Your task to perform on an android device: turn notification dots off Image 0: 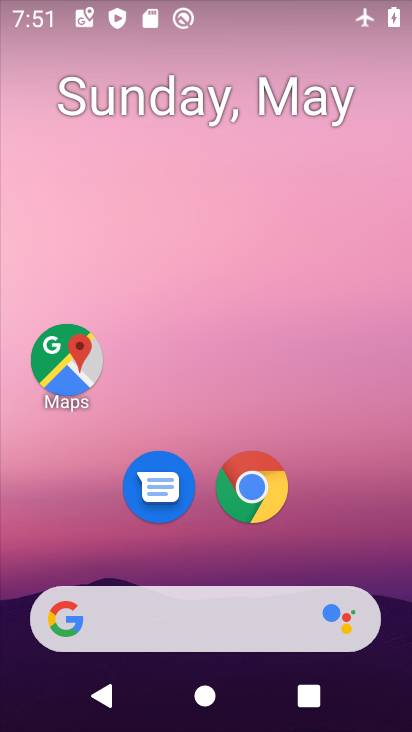
Step 0: drag from (373, 566) to (339, 292)
Your task to perform on an android device: turn notification dots off Image 1: 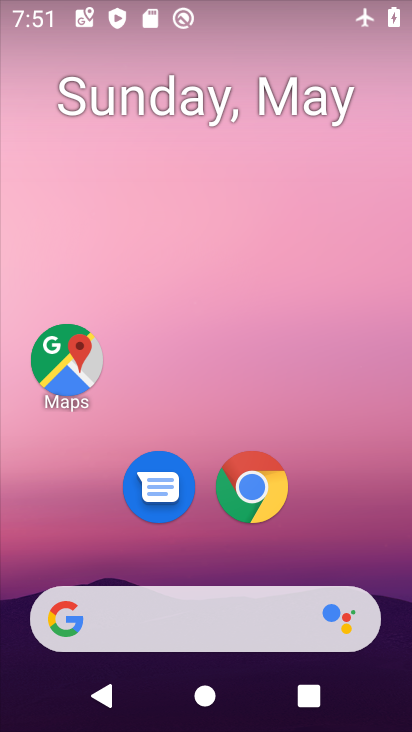
Step 1: drag from (368, 568) to (371, 172)
Your task to perform on an android device: turn notification dots off Image 2: 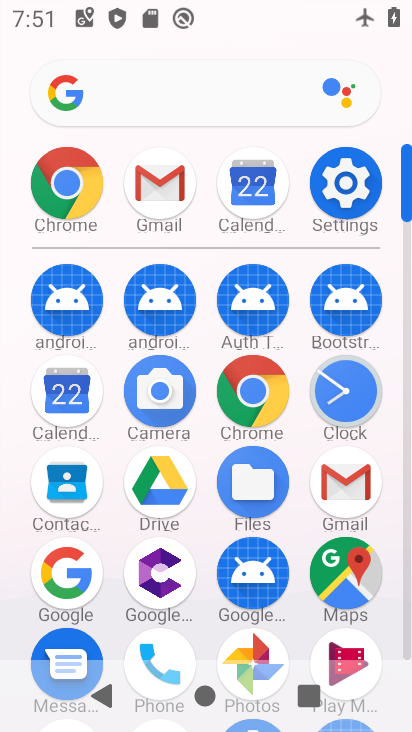
Step 2: click (350, 203)
Your task to perform on an android device: turn notification dots off Image 3: 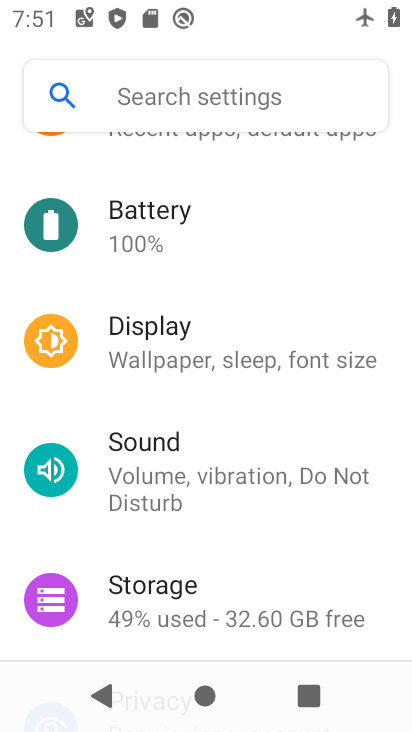
Step 3: drag from (362, 261) to (364, 360)
Your task to perform on an android device: turn notification dots off Image 4: 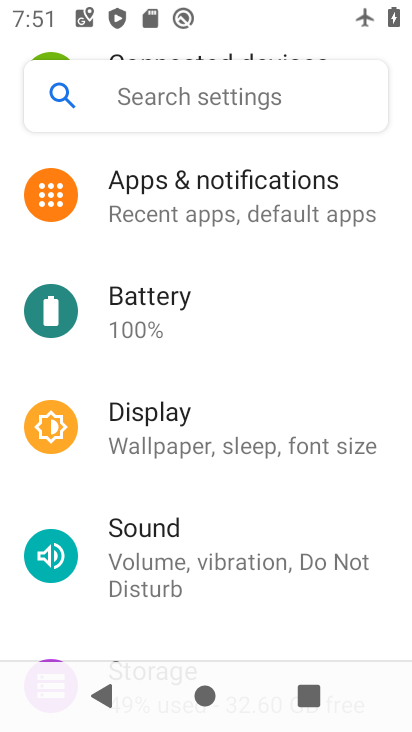
Step 4: drag from (390, 210) to (374, 358)
Your task to perform on an android device: turn notification dots off Image 5: 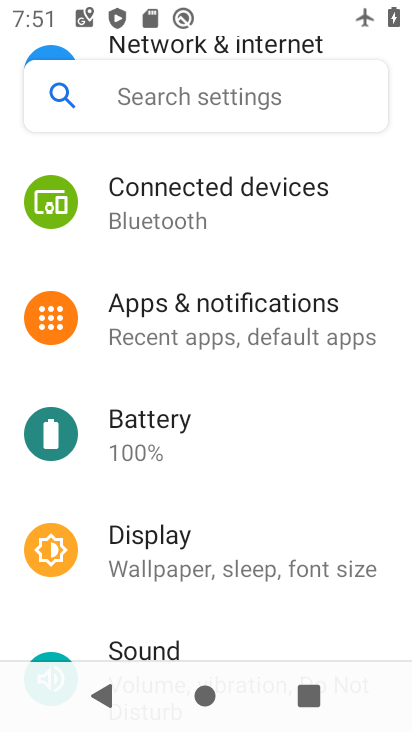
Step 5: drag from (380, 264) to (379, 346)
Your task to perform on an android device: turn notification dots off Image 6: 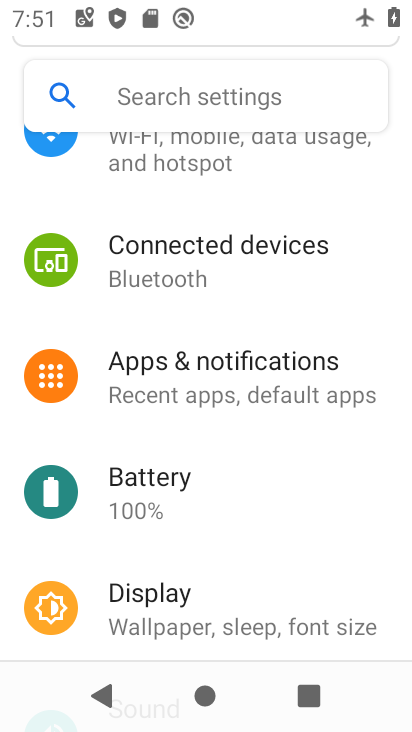
Step 6: drag from (379, 248) to (381, 341)
Your task to perform on an android device: turn notification dots off Image 7: 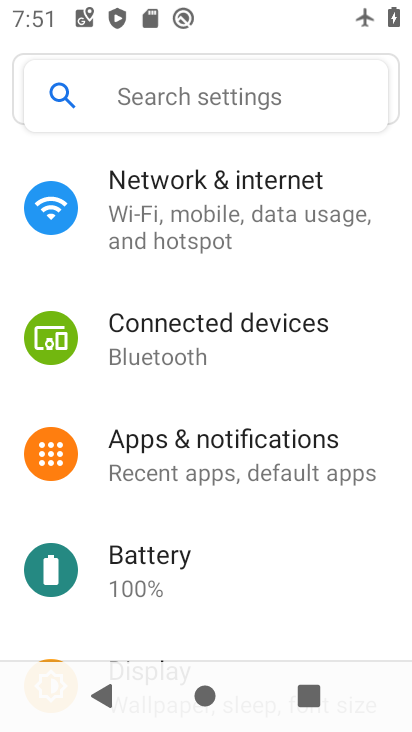
Step 7: drag from (380, 312) to (377, 400)
Your task to perform on an android device: turn notification dots off Image 8: 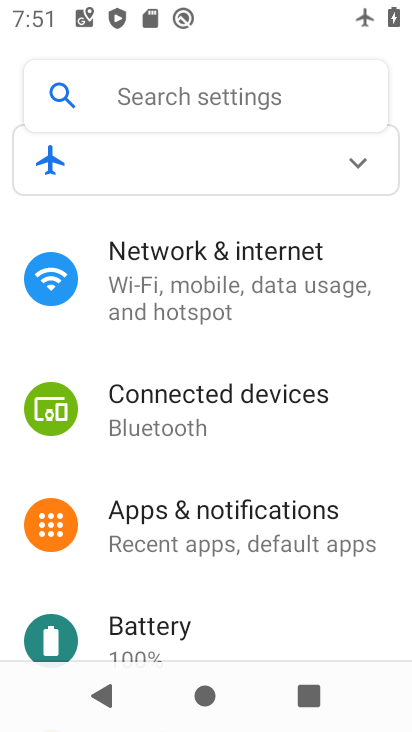
Step 8: drag from (376, 328) to (376, 416)
Your task to perform on an android device: turn notification dots off Image 9: 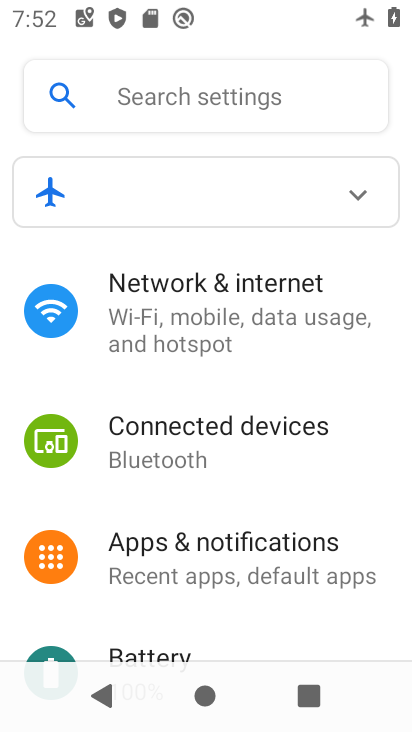
Step 9: drag from (378, 517) to (370, 403)
Your task to perform on an android device: turn notification dots off Image 10: 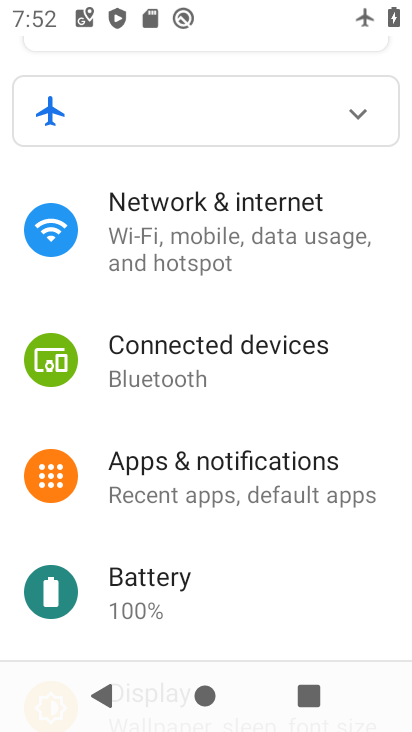
Step 10: click (309, 489)
Your task to perform on an android device: turn notification dots off Image 11: 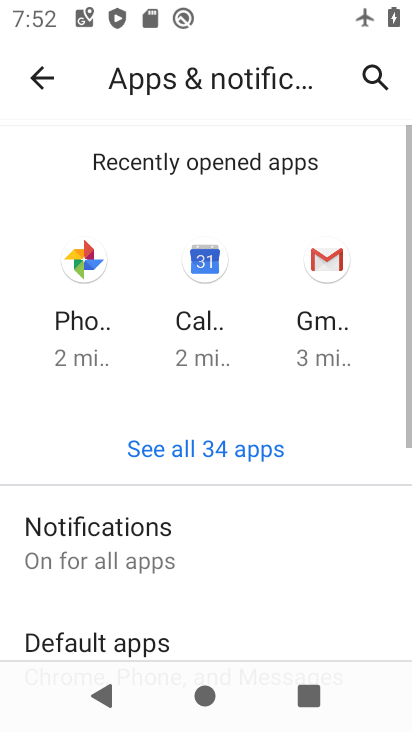
Step 11: drag from (318, 571) to (320, 455)
Your task to perform on an android device: turn notification dots off Image 12: 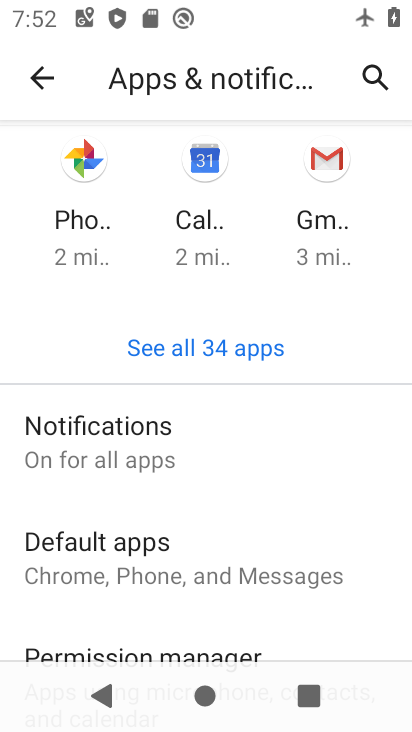
Step 12: drag from (336, 561) to (333, 455)
Your task to perform on an android device: turn notification dots off Image 13: 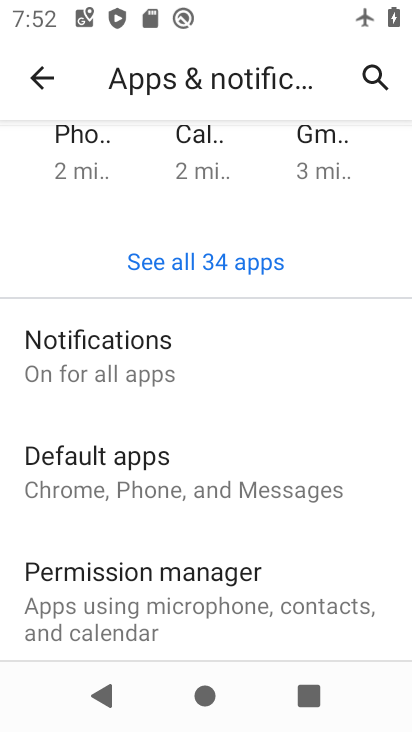
Step 13: click (132, 380)
Your task to perform on an android device: turn notification dots off Image 14: 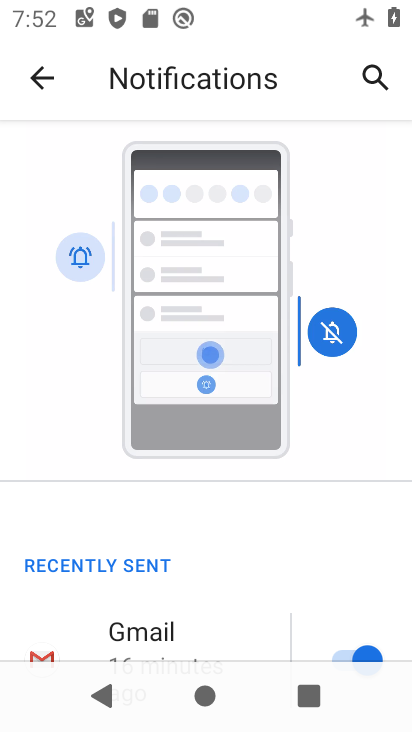
Step 14: drag from (264, 618) to (258, 535)
Your task to perform on an android device: turn notification dots off Image 15: 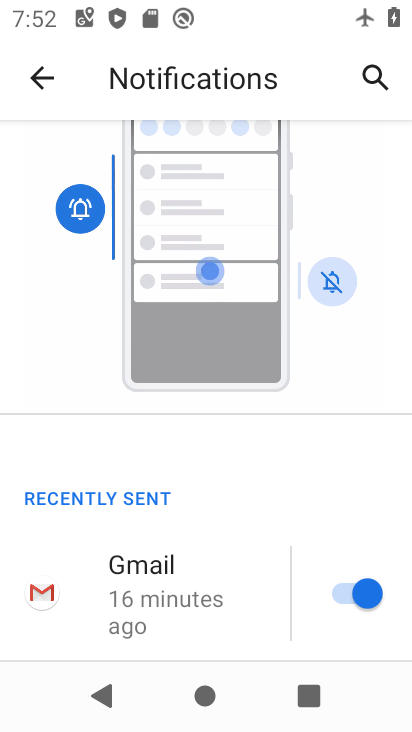
Step 15: drag from (253, 599) to (254, 518)
Your task to perform on an android device: turn notification dots off Image 16: 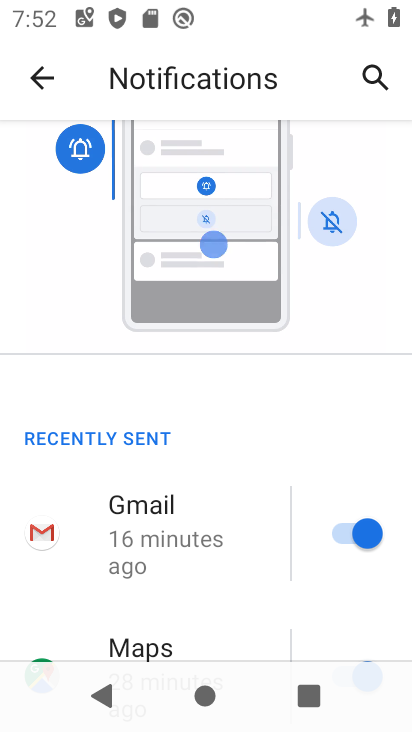
Step 16: drag from (247, 619) to (246, 515)
Your task to perform on an android device: turn notification dots off Image 17: 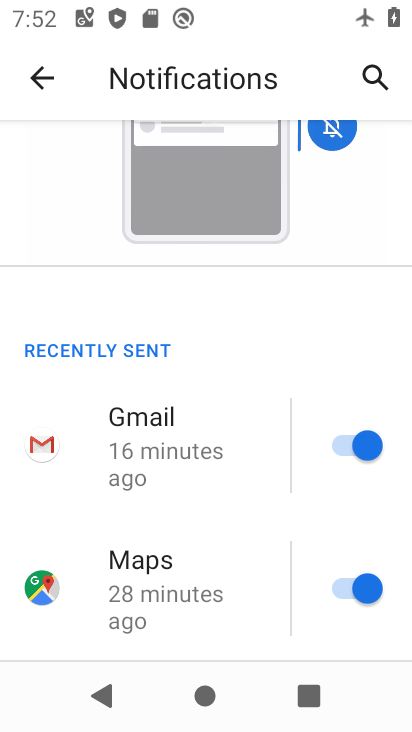
Step 17: drag from (243, 620) to (242, 510)
Your task to perform on an android device: turn notification dots off Image 18: 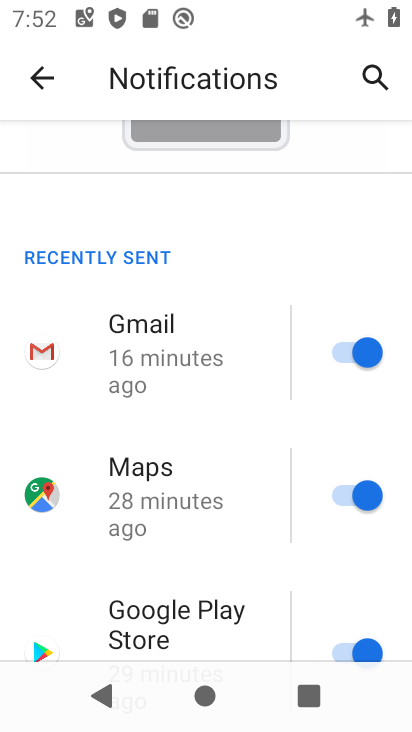
Step 18: drag from (266, 623) to (266, 509)
Your task to perform on an android device: turn notification dots off Image 19: 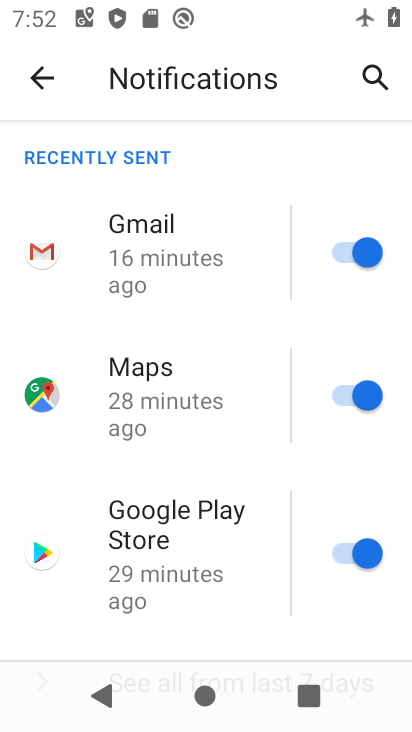
Step 19: drag from (248, 601) to (246, 510)
Your task to perform on an android device: turn notification dots off Image 20: 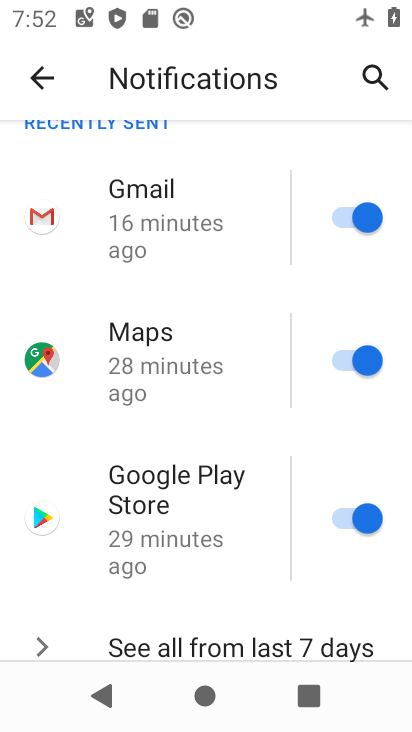
Step 20: drag from (250, 603) to (243, 522)
Your task to perform on an android device: turn notification dots off Image 21: 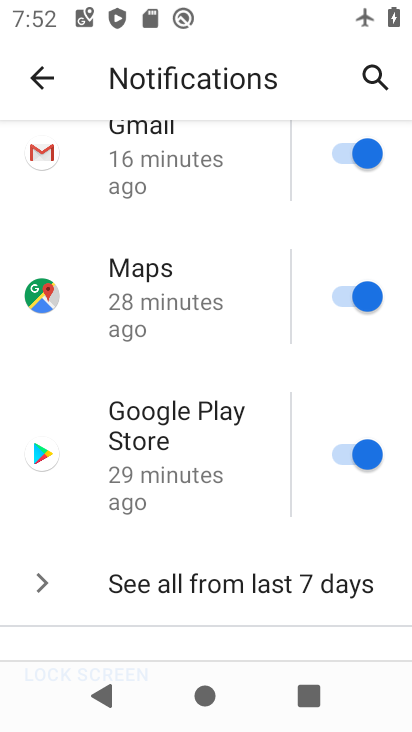
Step 21: drag from (246, 615) to (241, 531)
Your task to perform on an android device: turn notification dots off Image 22: 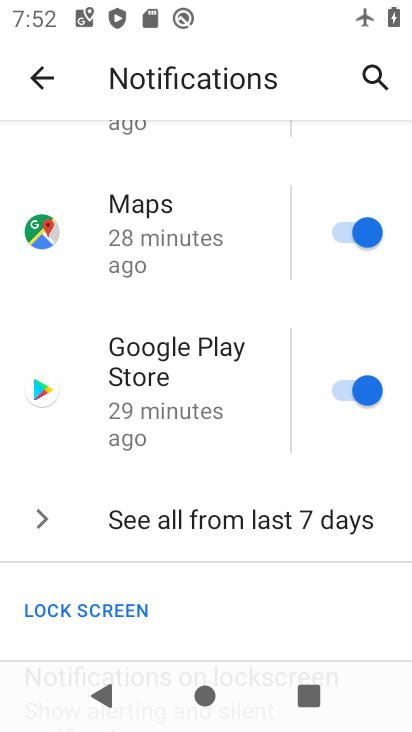
Step 22: drag from (245, 604) to (245, 485)
Your task to perform on an android device: turn notification dots off Image 23: 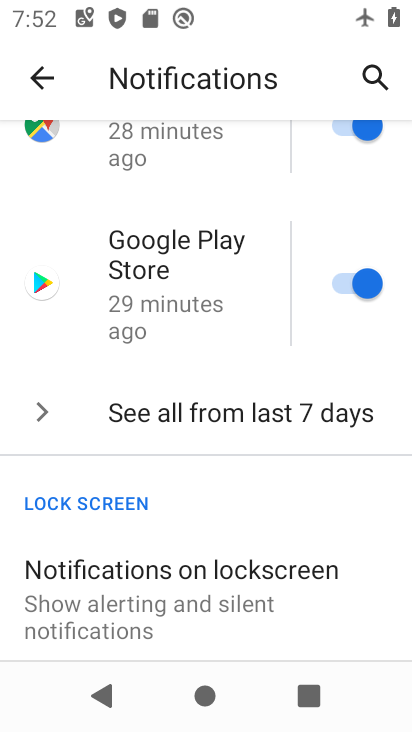
Step 23: drag from (349, 617) to (337, 480)
Your task to perform on an android device: turn notification dots off Image 24: 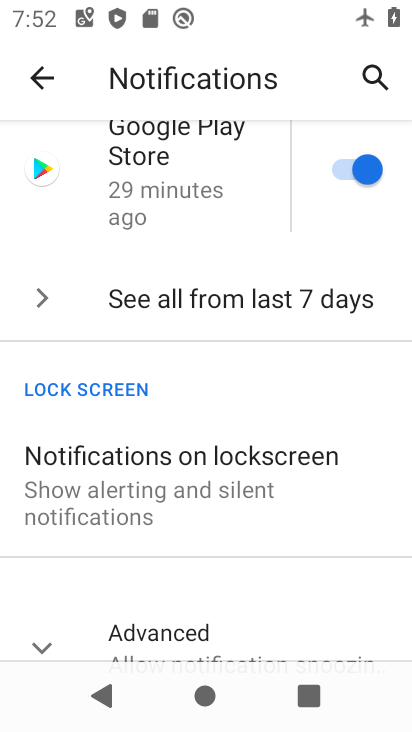
Step 24: drag from (343, 627) to (346, 485)
Your task to perform on an android device: turn notification dots off Image 25: 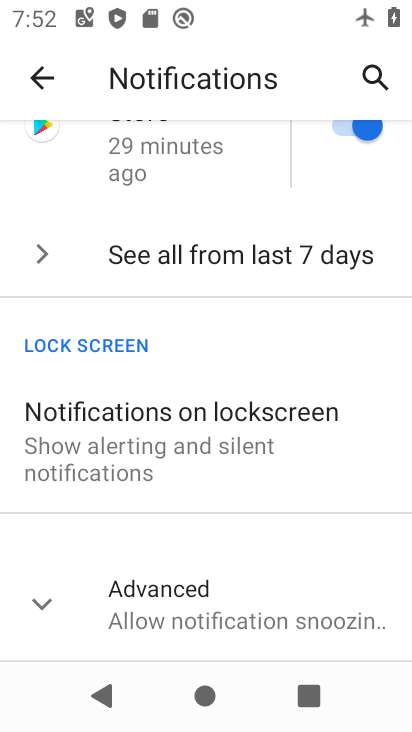
Step 25: click (293, 629)
Your task to perform on an android device: turn notification dots off Image 26: 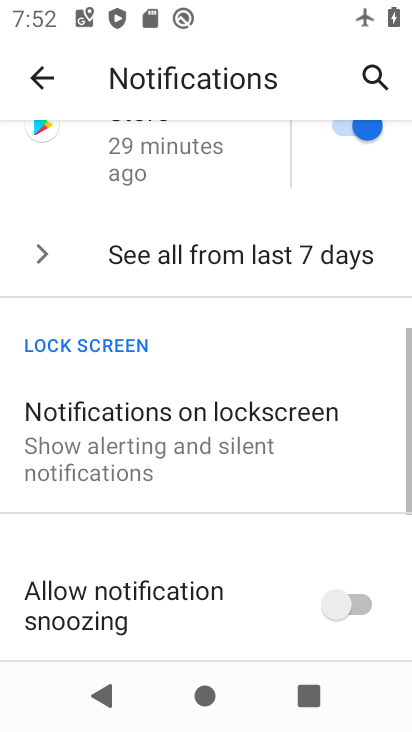
Step 26: task complete